Your task to perform on an android device: turn off location history Image 0: 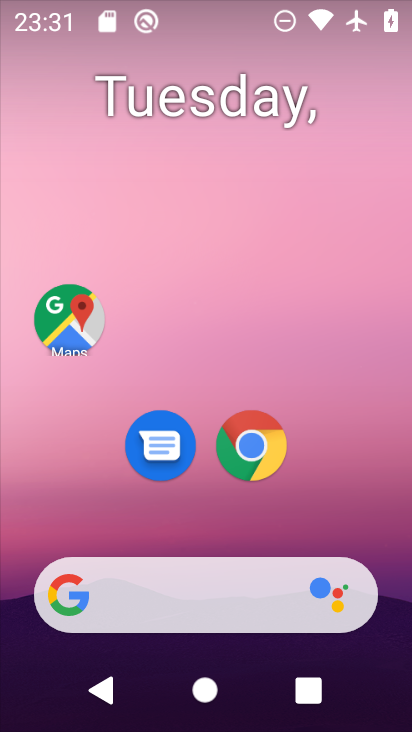
Step 0: drag from (290, 524) to (294, 83)
Your task to perform on an android device: turn off location history Image 1: 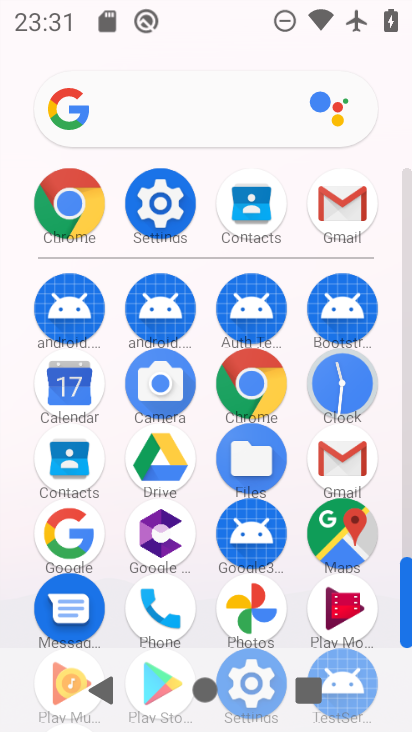
Step 1: click (170, 199)
Your task to perform on an android device: turn off location history Image 2: 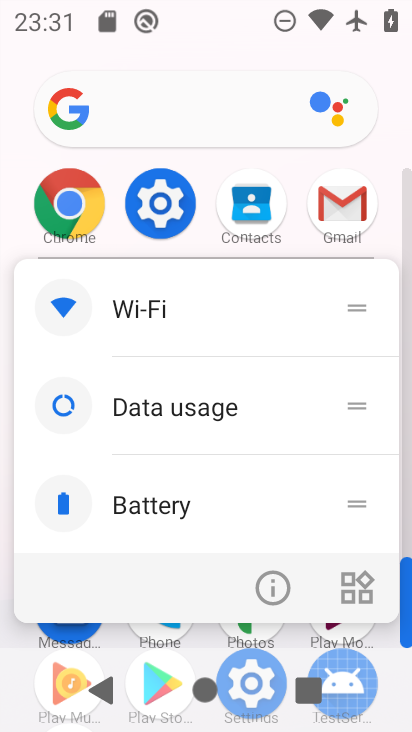
Step 2: click (160, 208)
Your task to perform on an android device: turn off location history Image 3: 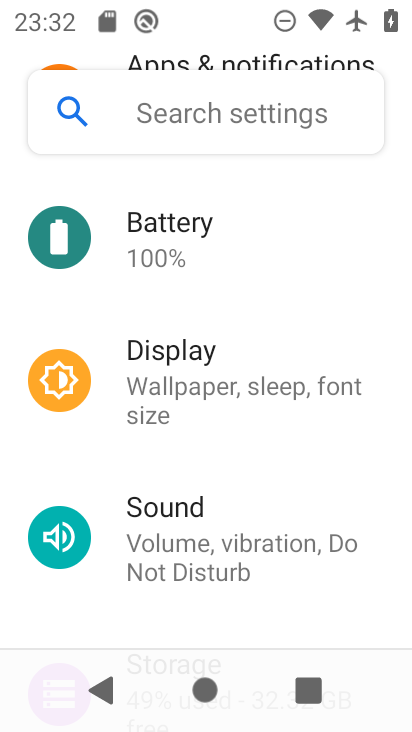
Step 3: drag from (216, 604) to (197, 362)
Your task to perform on an android device: turn off location history Image 4: 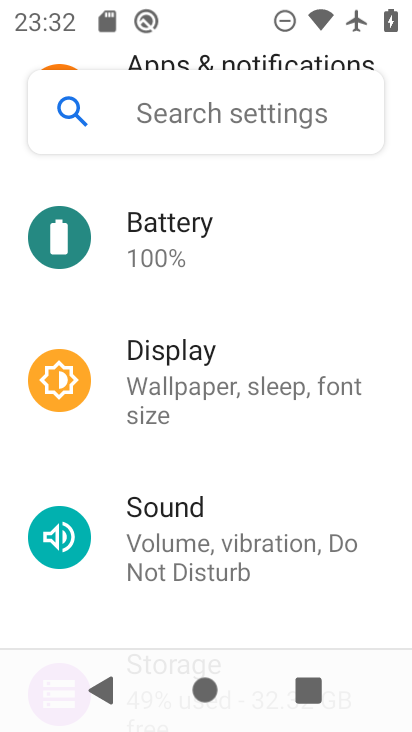
Step 4: drag from (157, 571) to (162, 387)
Your task to perform on an android device: turn off location history Image 5: 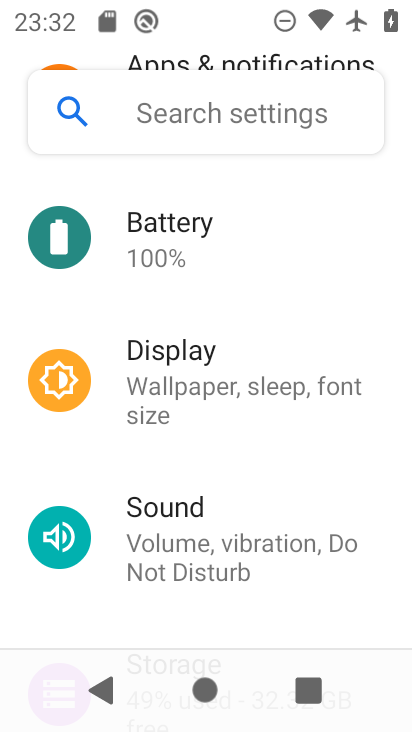
Step 5: drag from (166, 568) to (182, 295)
Your task to perform on an android device: turn off location history Image 6: 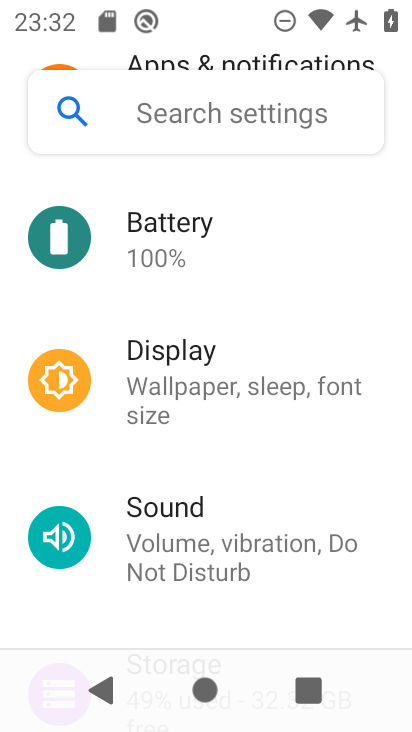
Step 6: drag from (86, 577) to (117, 255)
Your task to perform on an android device: turn off location history Image 7: 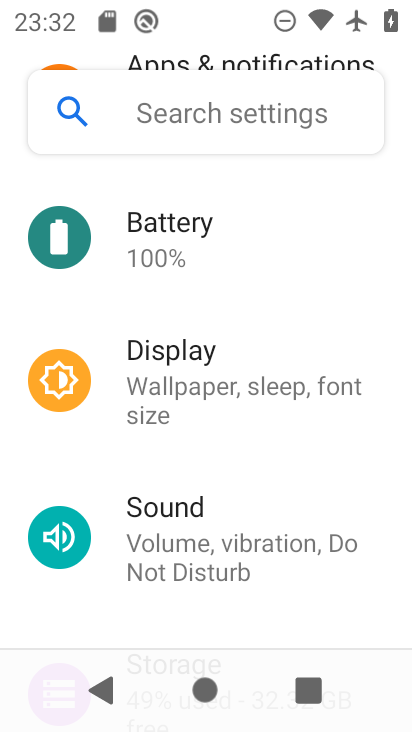
Step 7: drag from (169, 598) to (175, 370)
Your task to perform on an android device: turn off location history Image 8: 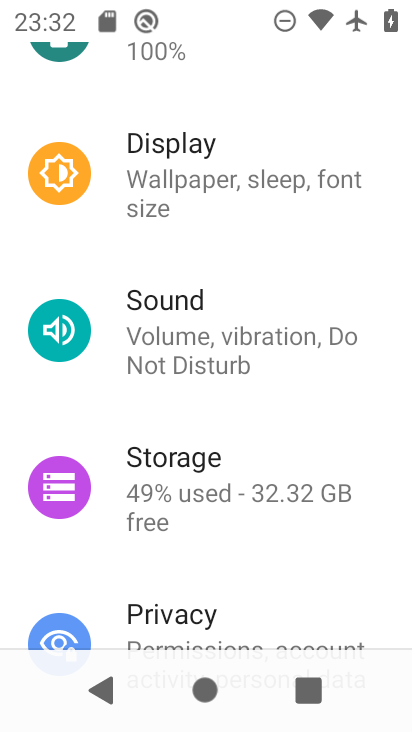
Step 8: drag from (155, 597) to (161, 370)
Your task to perform on an android device: turn off location history Image 9: 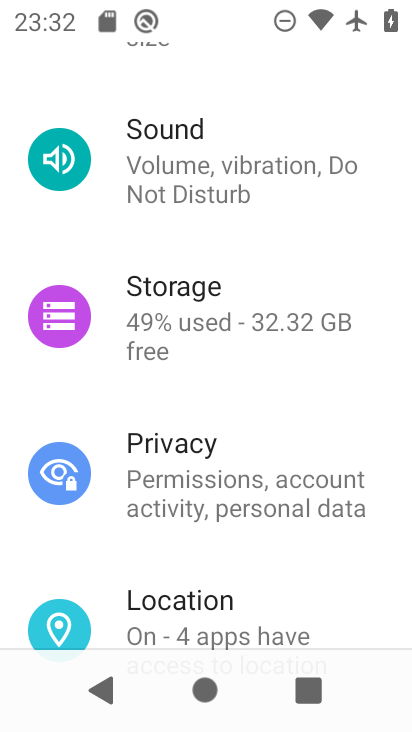
Step 9: click (145, 618)
Your task to perform on an android device: turn off location history Image 10: 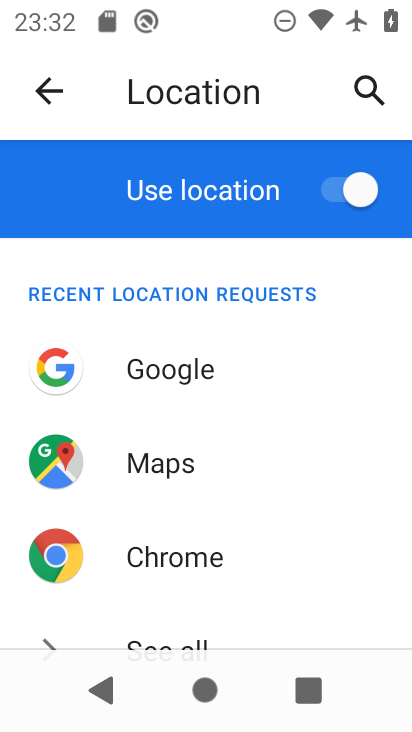
Step 10: drag from (228, 580) to (284, 153)
Your task to perform on an android device: turn off location history Image 11: 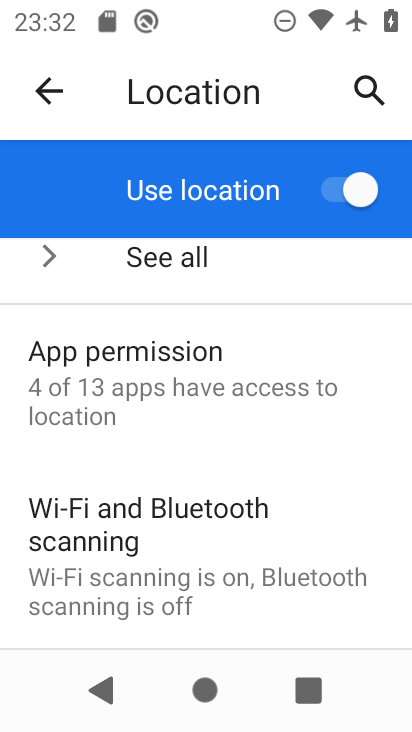
Step 11: drag from (189, 580) to (237, 303)
Your task to perform on an android device: turn off location history Image 12: 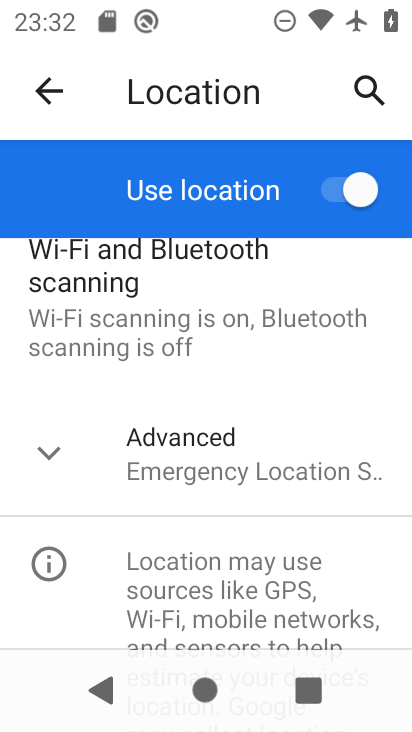
Step 12: click (189, 474)
Your task to perform on an android device: turn off location history Image 13: 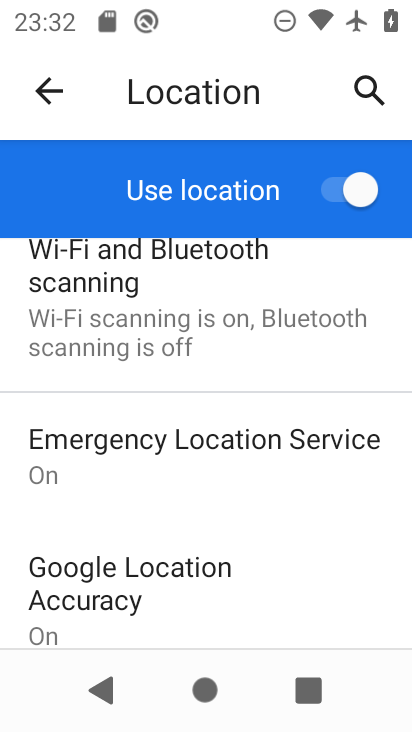
Step 13: drag from (210, 596) to (296, 260)
Your task to perform on an android device: turn off location history Image 14: 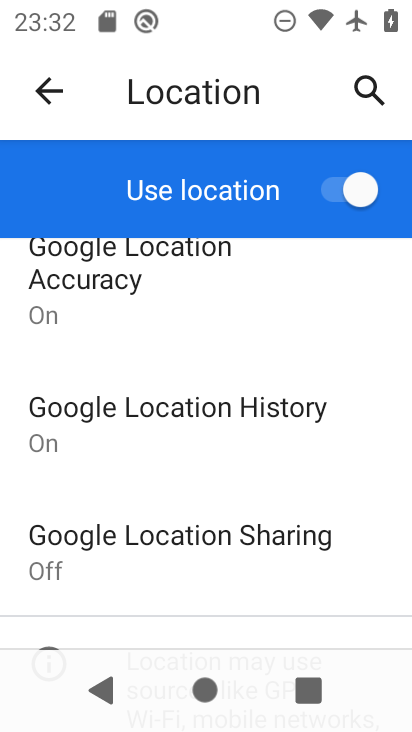
Step 14: click (252, 412)
Your task to perform on an android device: turn off location history Image 15: 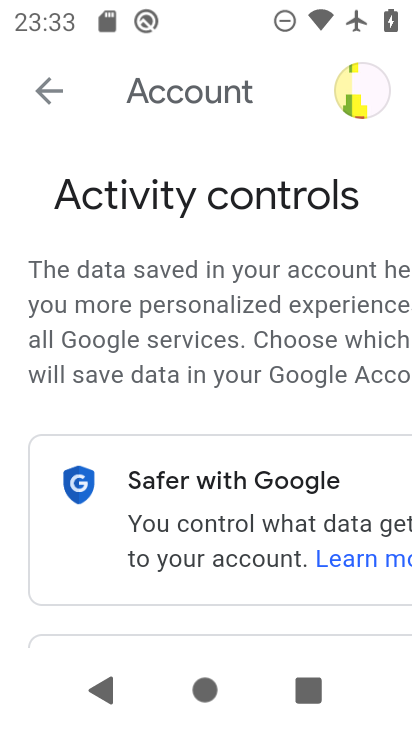
Step 15: drag from (284, 602) to (306, 229)
Your task to perform on an android device: turn off location history Image 16: 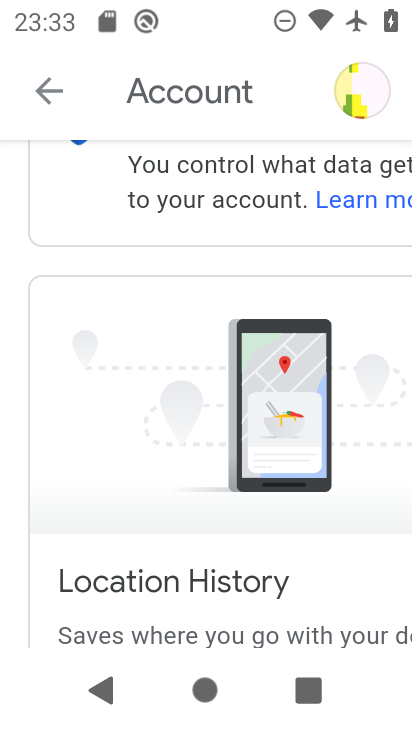
Step 16: drag from (253, 569) to (280, 119)
Your task to perform on an android device: turn off location history Image 17: 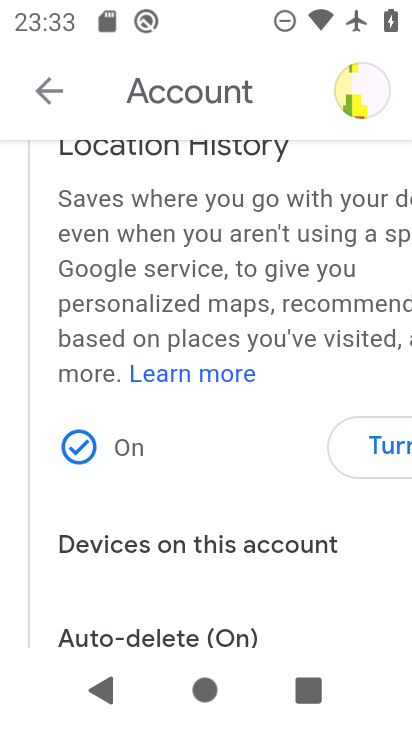
Step 17: click (389, 450)
Your task to perform on an android device: turn off location history Image 18: 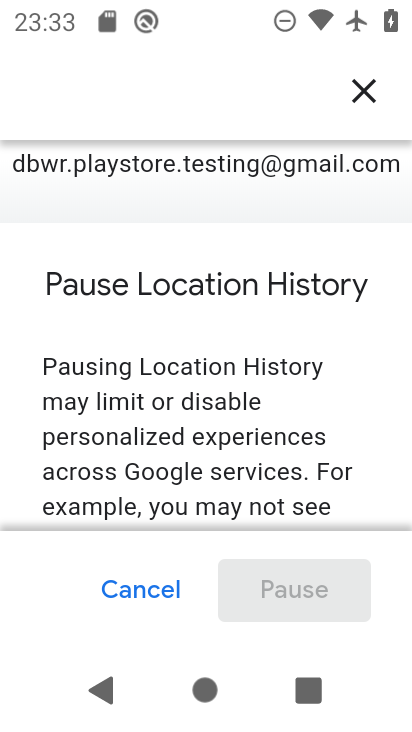
Step 18: drag from (256, 516) to (277, 165)
Your task to perform on an android device: turn off location history Image 19: 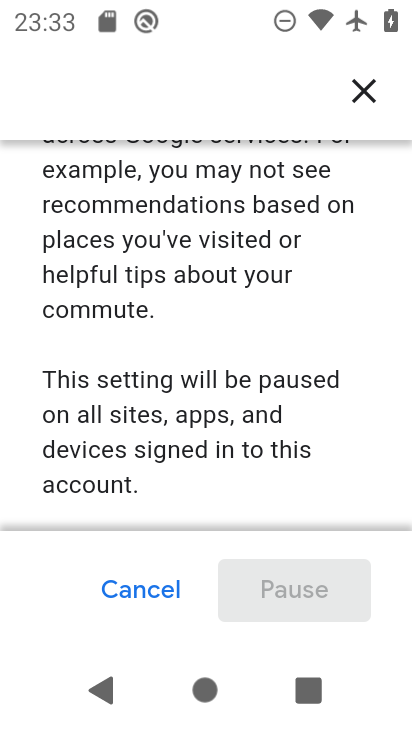
Step 19: drag from (224, 461) to (278, 79)
Your task to perform on an android device: turn off location history Image 20: 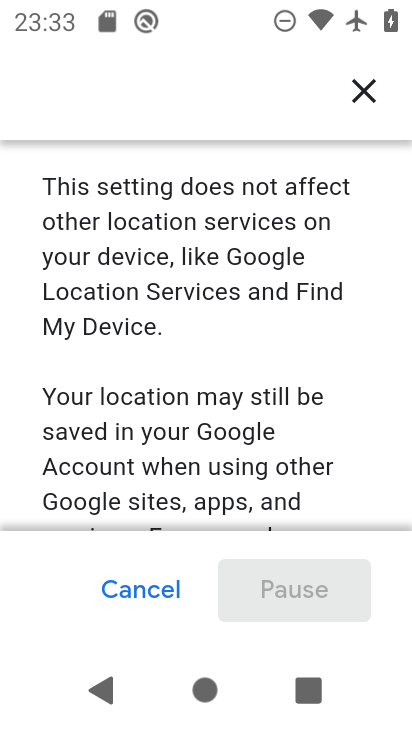
Step 20: drag from (230, 441) to (285, 91)
Your task to perform on an android device: turn off location history Image 21: 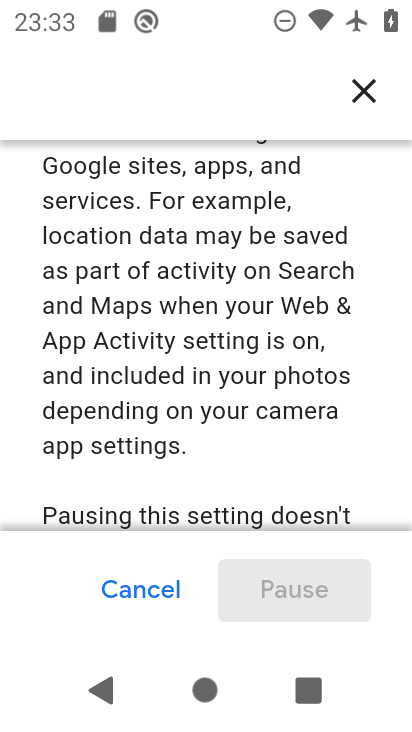
Step 21: drag from (260, 474) to (292, 145)
Your task to perform on an android device: turn off location history Image 22: 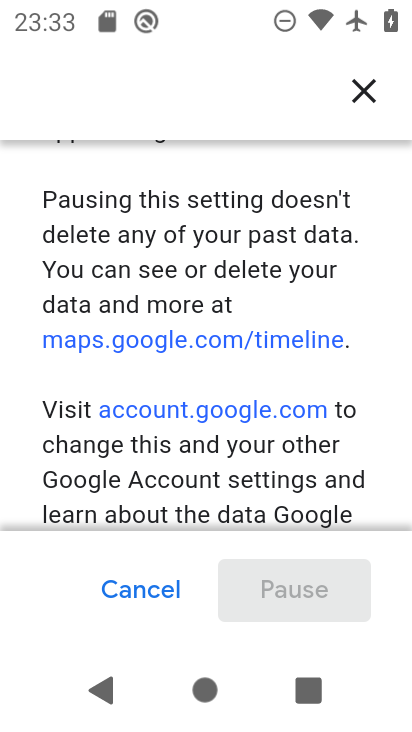
Step 22: drag from (246, 511) to (281, 228)
Your task to perform on an android device: turn off location history Image 23: 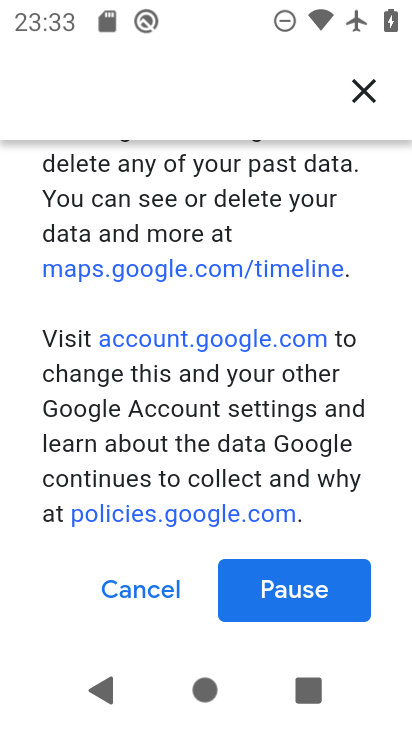
Step 23: click (280, 598)
Your task to perform on an android device: turn off location history Image 24: 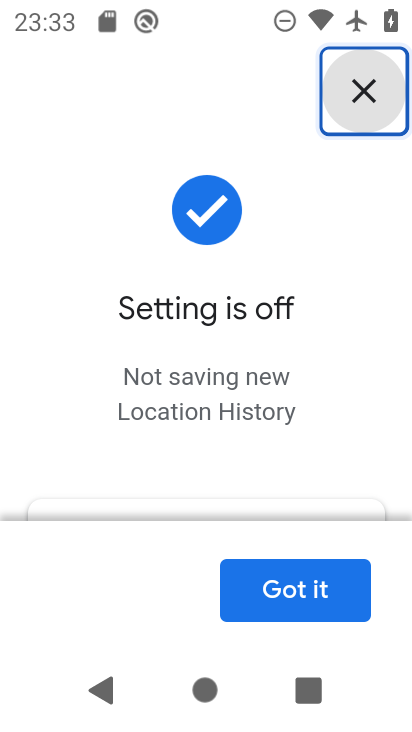
Step 24: click (335, 574)
Your task to perform on an android device: turn off location history Image 25: 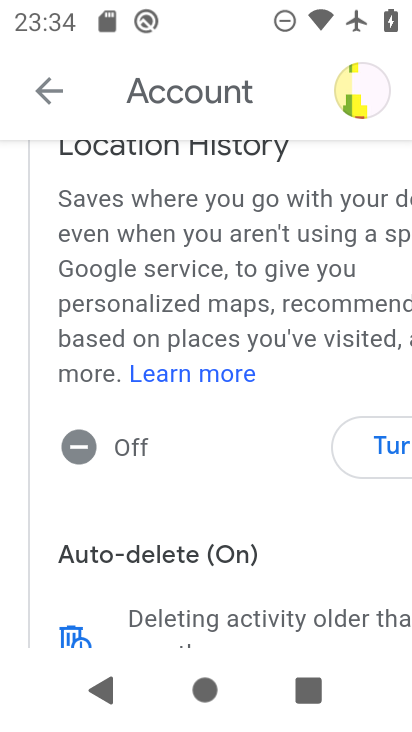
Step 25: task complete